Your task to perform on an android device: Open wifi settings Image 0: 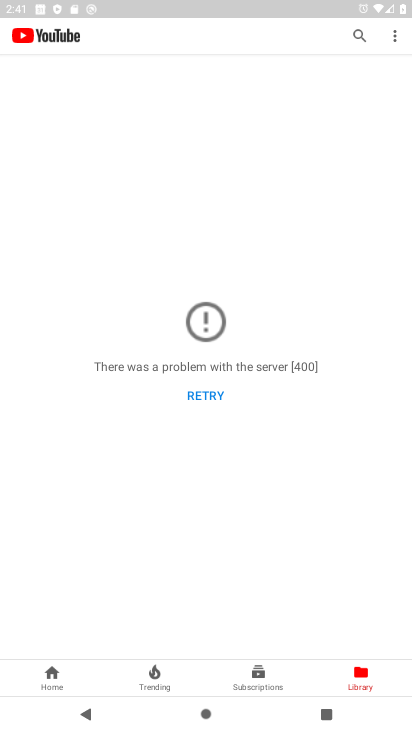
Step 0: press home button
Your task to perform on an android device: Open wifi settings Image 1: 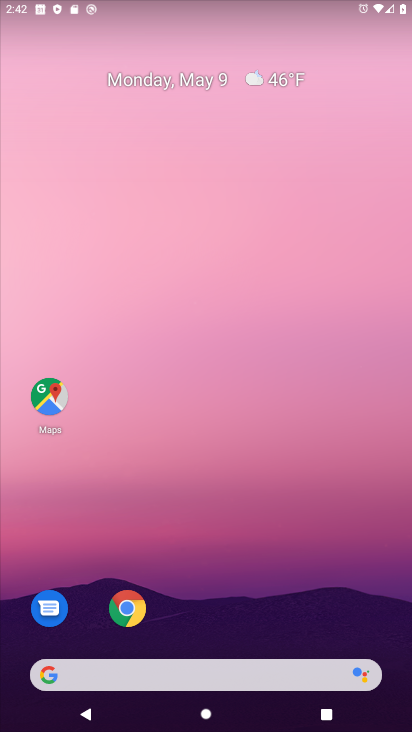
Step 1: drag from (228, 519) to (288, 257)
Your task to perform on an android device: Open wifi settings Image 2: 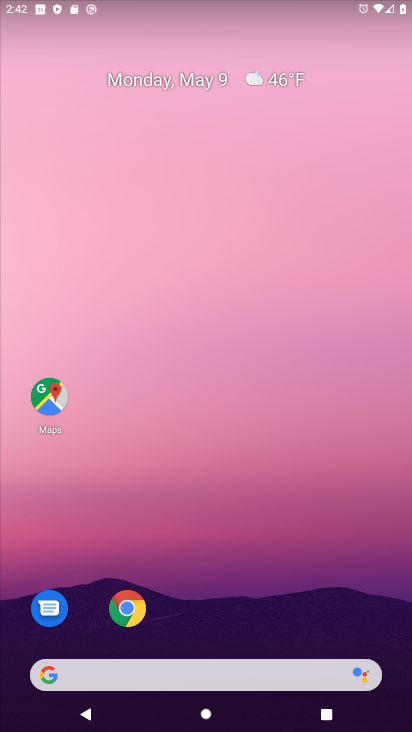
Step 2: drag from (200, 668) to (320, 356)
Your task to perform on an android device: Open wifi settings Image 3: 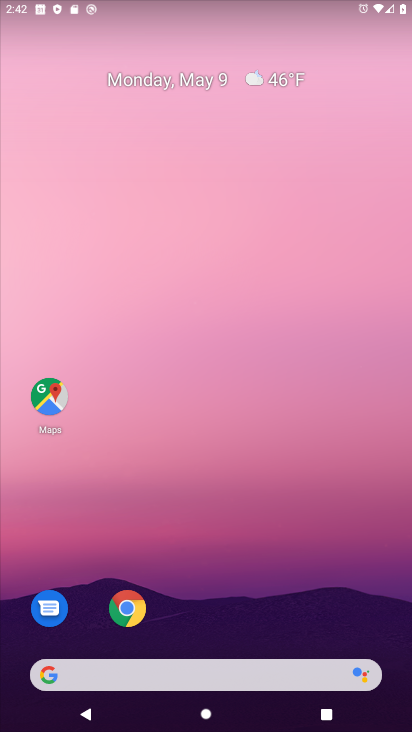
Step 3: drag from (178, 583) to (258, 311)
Your task to perform on an android device: Open wifi settings Image 4: 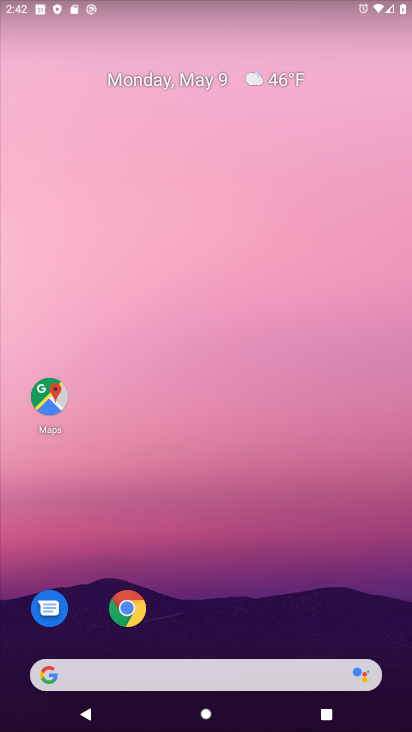
Step 4: drag from (214, 653) to (262, 304)
Your task to perform on an android device: Open wifi settings Image 5: 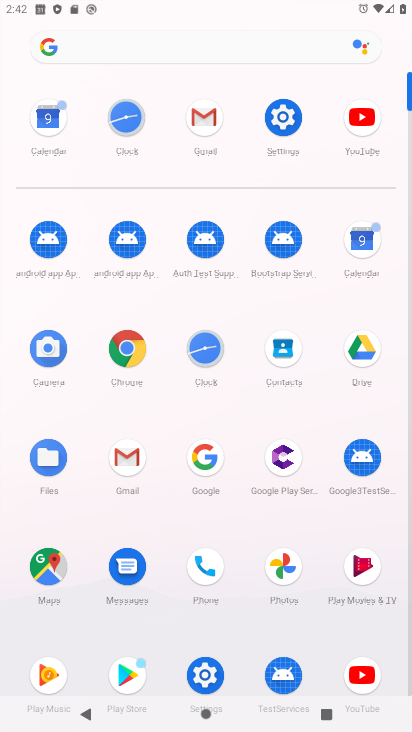
Step 5: click (284, 131)
Your task to perform on an android device: Open wifi settings Image 6: 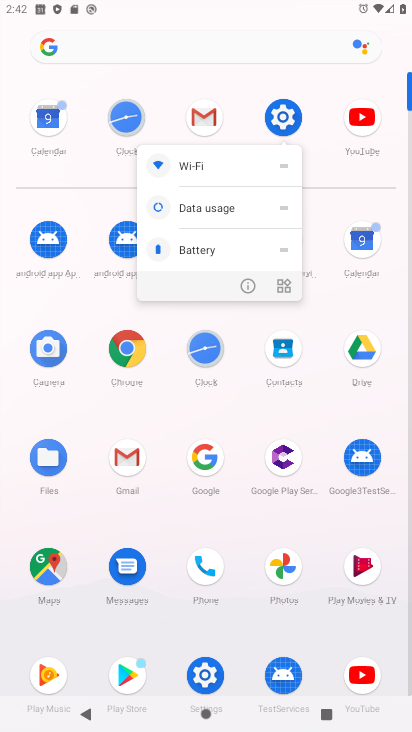
Step 6: click (281, 110)
Your task to perform on an android device: Open wifi settings Image 7: 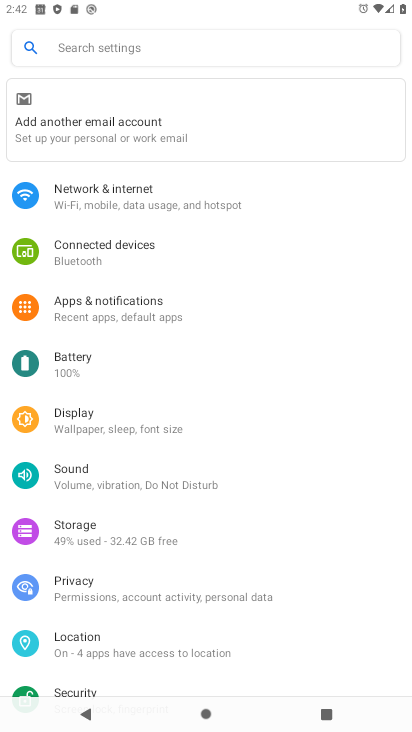
Step 7: click (125, 188)
Your task to perform on an android device: Open wifi settings Image 8: 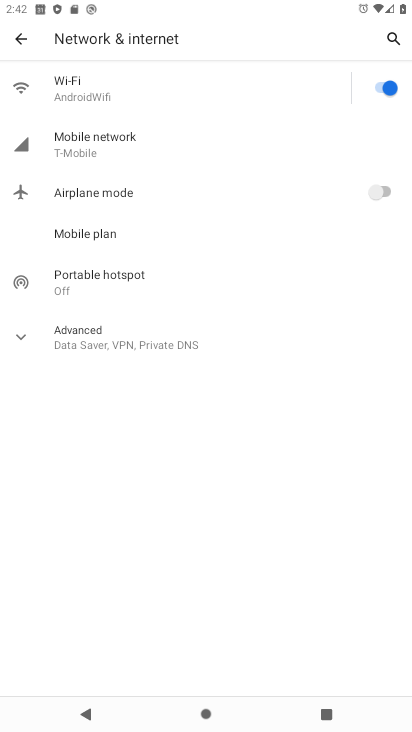
Step 8: click (128, 89)
Your task to perform on an android device: Open wifi settings Image 9: 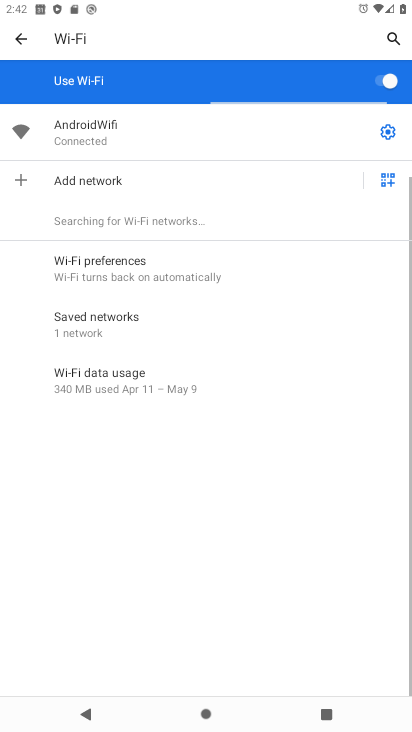
Step 9: task complete